Your task to perform on an android device: Go to accessibility settings Image 0: 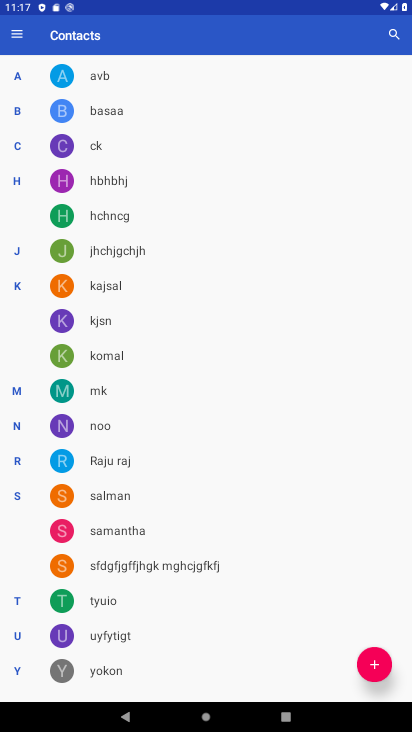
Step 0: press home button
Your task to perform on an android device: Go to accessibility settings Image 1: 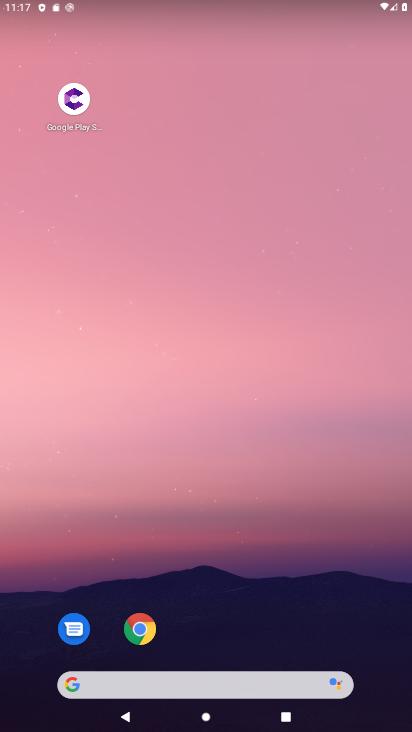
Step 1: drag from (377, 583) to (355, 194)
Your task to perform on an android device: Go to accessibility settings Image 2: 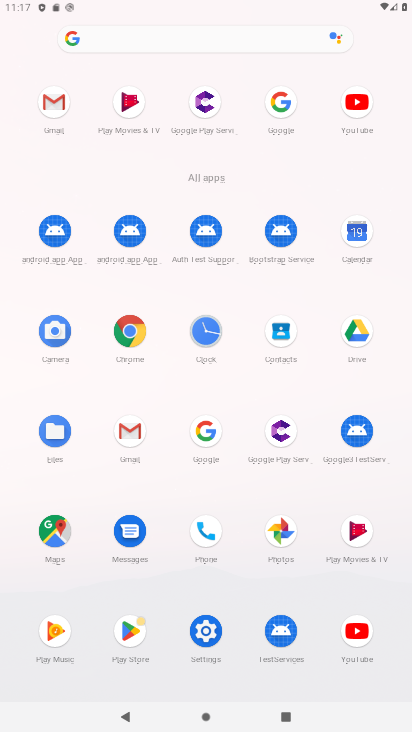
Step 2: click (198, 630)
Your task to perform on an android device: Go to accessibility settings Image 3: 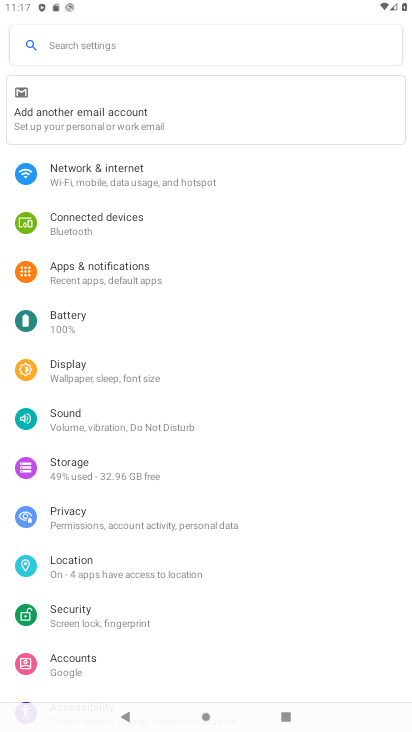
Step 3: drag from (270, 616) to (282, 186)
Your task to perform on an android device: Go to accessibility settings Image 4: 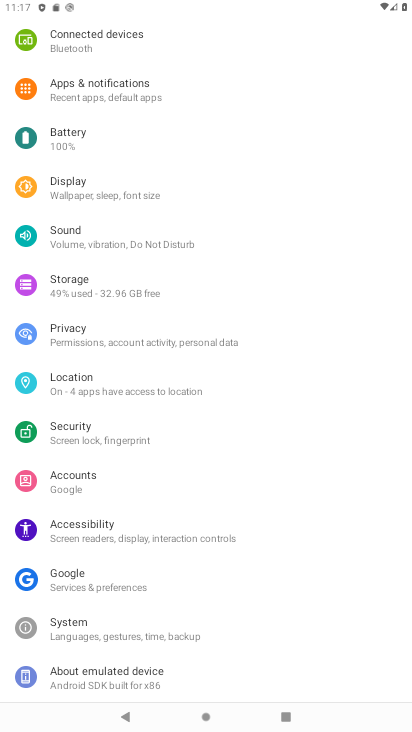
Step 4: click (100, 534)
Your task to perform on an android device: Go to accessibility settings Image 5: 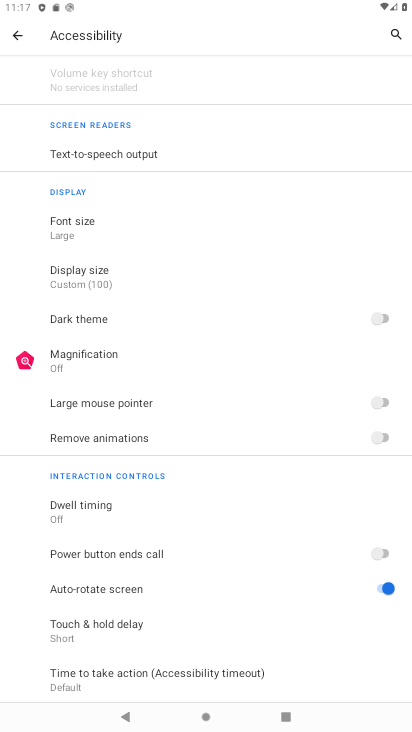
Step 5: task complete